Your task to perform on an android device: Open Google Image 0: 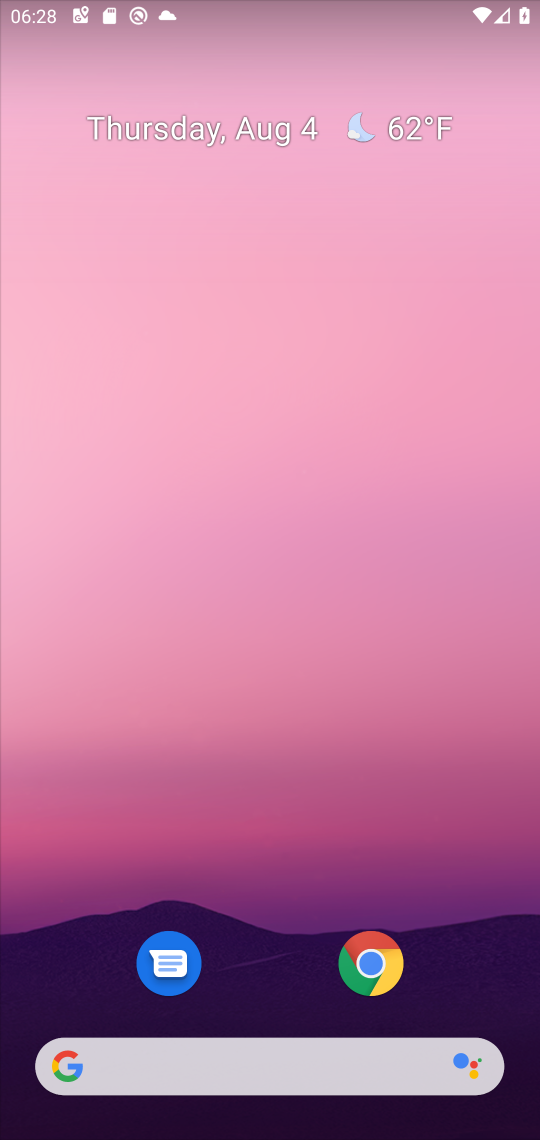
Step 0: click (65, 1062)
Your task to perform on an android device: Open Google Image 1: 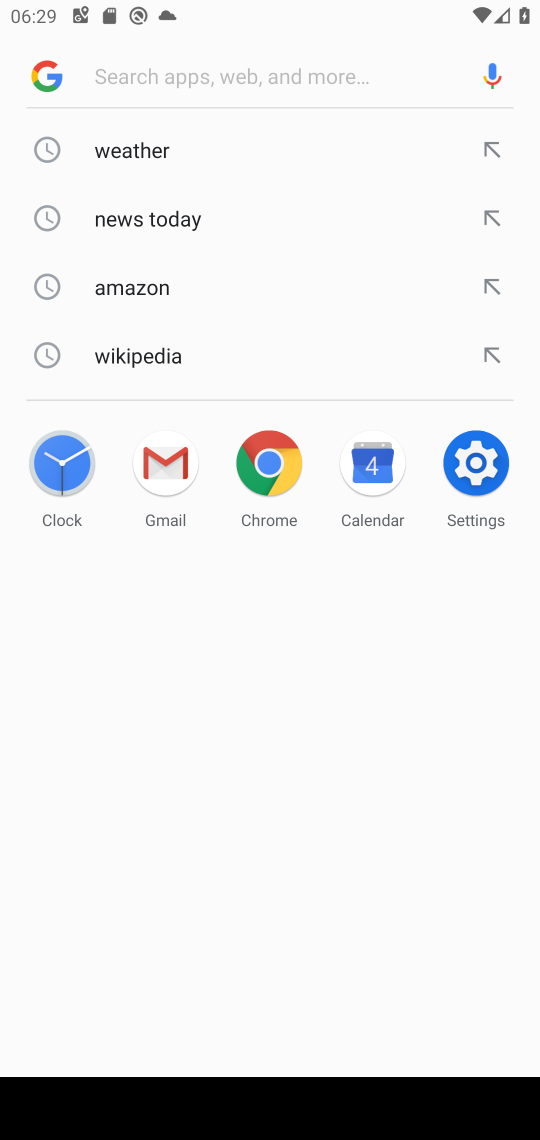
Step 1: click (55, 64)
Your task to perform on an android device: Open Google Image 2: 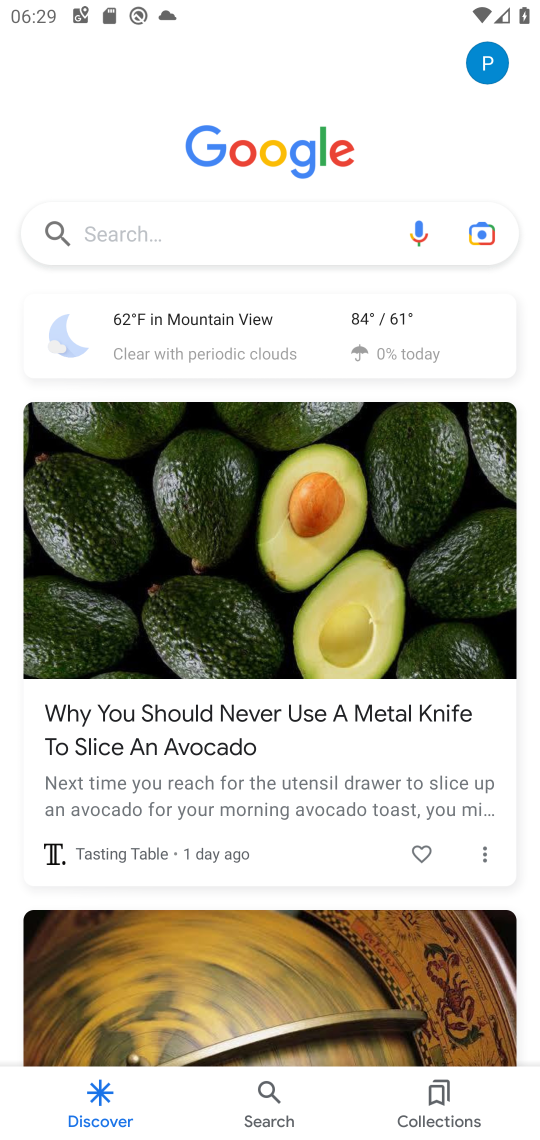
Step 2: task complete